Your task to perform on an android device: Go to Amazon Image 0: 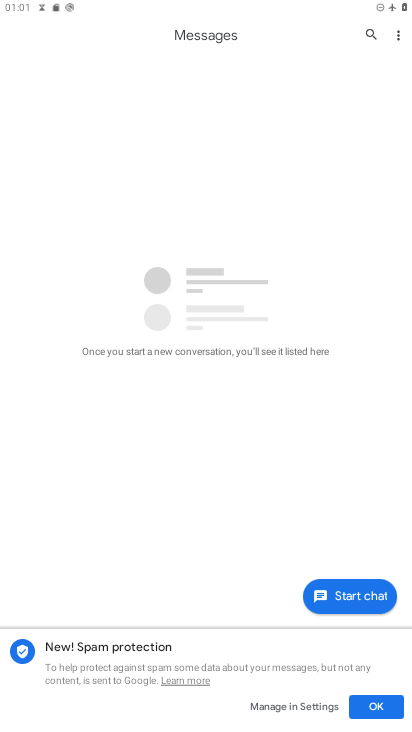
Step 0: press home button
Your task to perform on an android device: Go to Amazon Image 1: 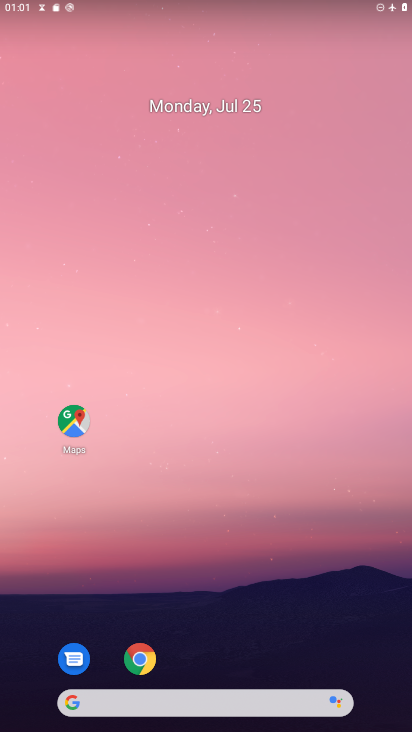
Step 1: drag from (288, 604) to (329, 276)
Your task to perform on an android device: Go to Amazon Image 2: 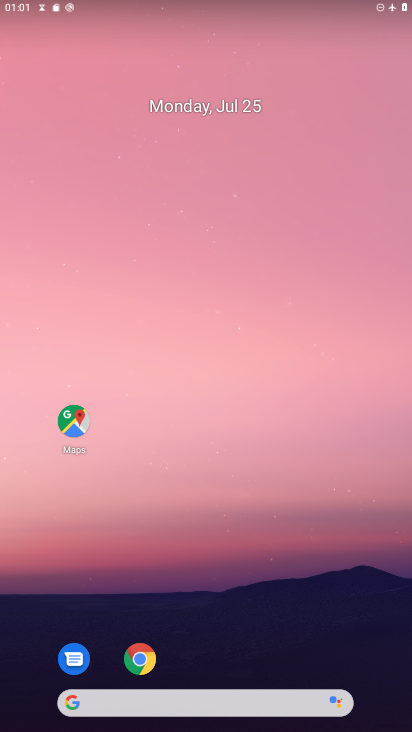
Step 2: drag from (204, 682) to (201, 351)
Your task to perform on an android device: Go to Amazon Image 3: 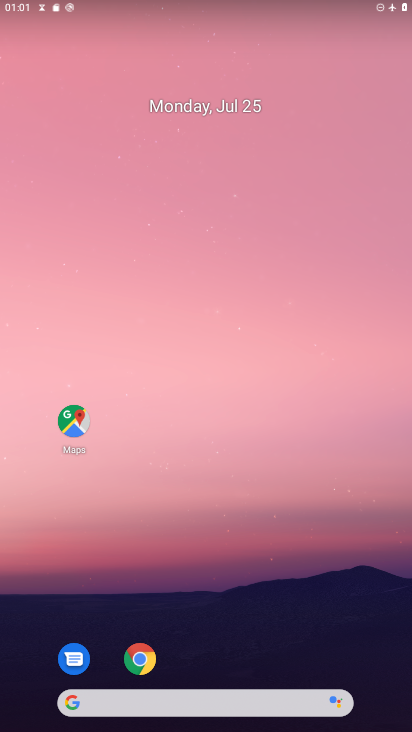
Step 3: drag from (229, 670) to (220, 322)
Your task to perform on an android device: Go to Amazon Image 4: 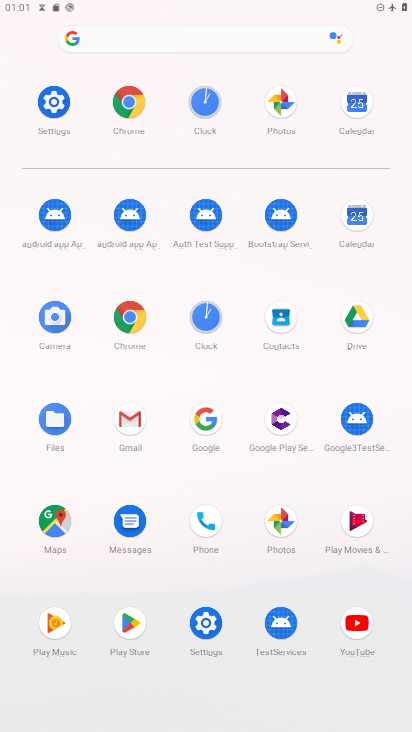
Step 4: click (117, 89)
Your task to perform on an android device: Go to Amazon Image 5: 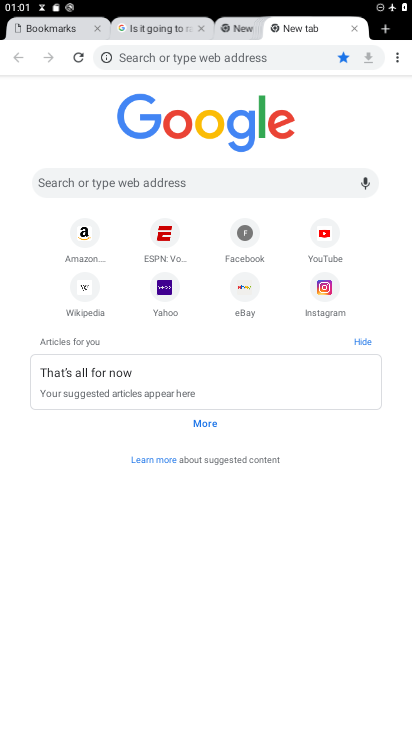
Step 5: click (82, 228)
Your task to perform on an android device: Go to Amazon Image 6: 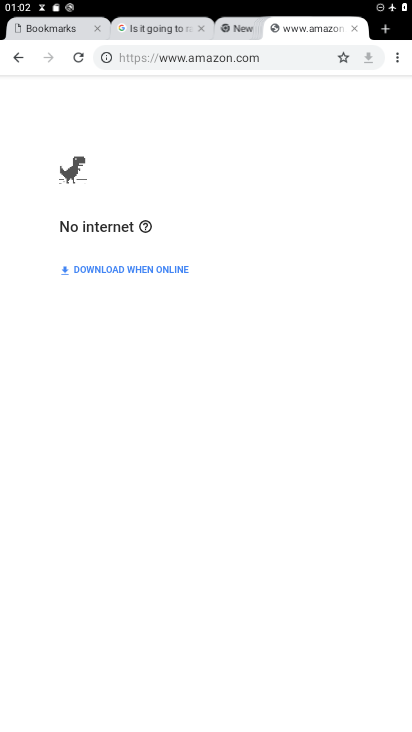
Step 6: task complete